Your task to perform on an android device: set the stopwatch Image 0: 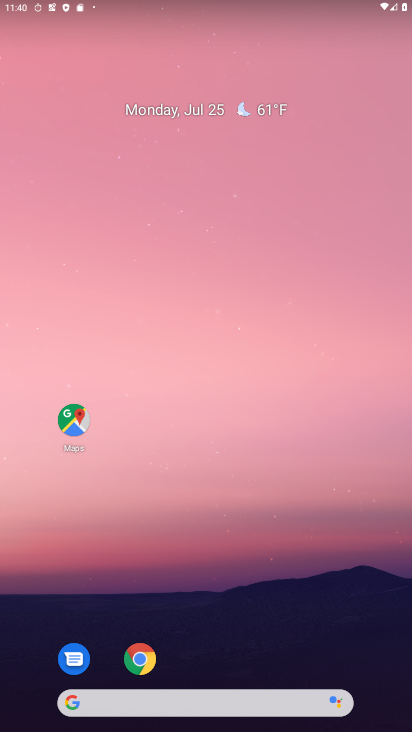
Step 0: drag from (14, 685) to (374, 335)
Your task to perform on an android device: set the stopwatch Image 1: 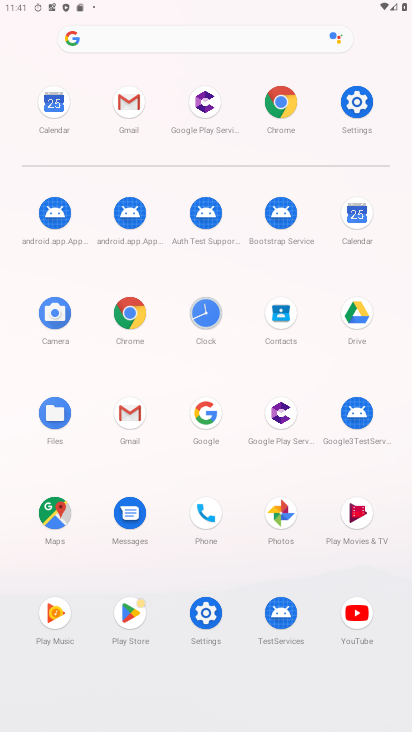
Step 1: click (217, 320)
Your task to perform on an android device: set the stopwatch Image 2: 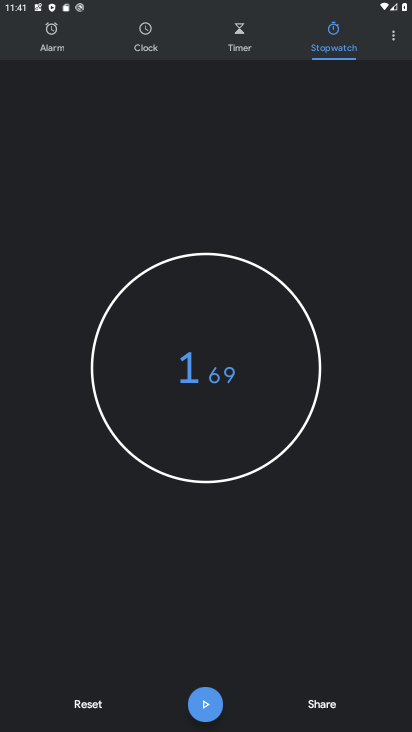
Step 2: click (183, 365)
Your task to perform on an android device: set the stopwatch Image 3: 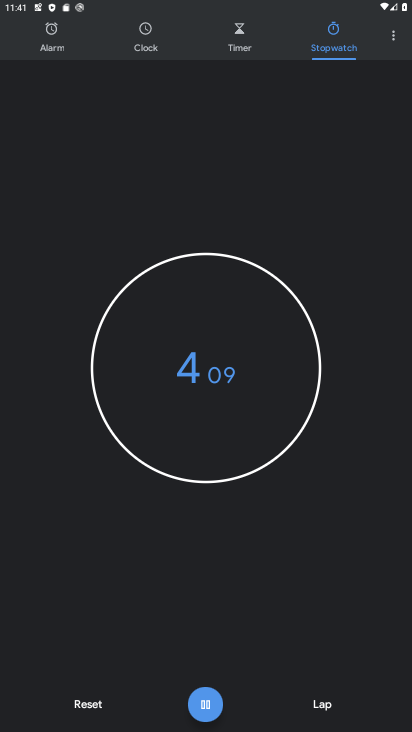
Step 3: click (205, 707)
Your task to perform on an android device: set the stopwatch Image 4: 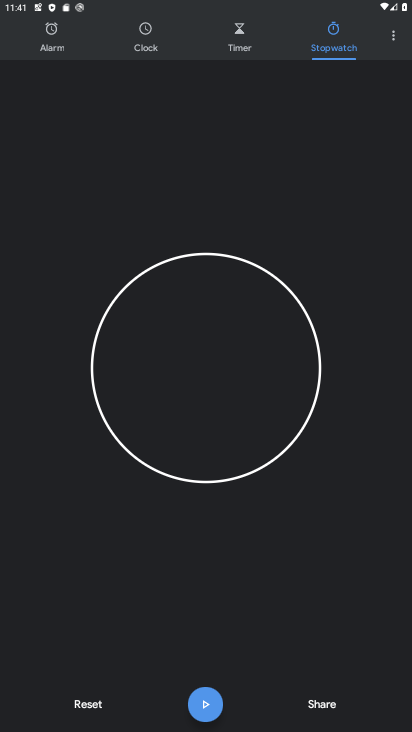
Step 4: task complete